Your task to perform on an android device: Do I have any events today? Image 0: 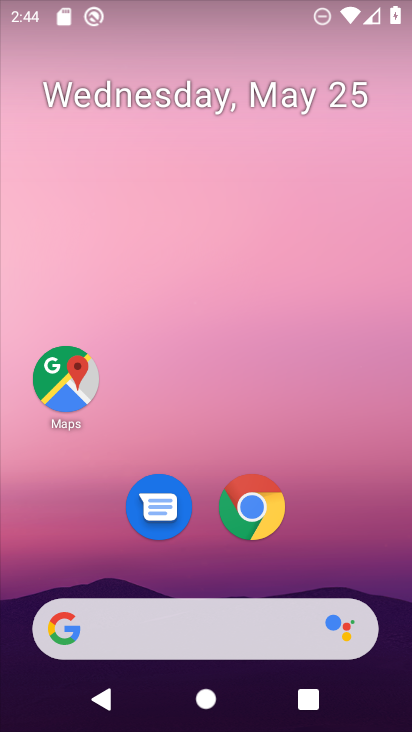
Step 0: drag from (217, 630) to (226, 90)
Your task to perform on an android device: Do I have any events today? Image 1: 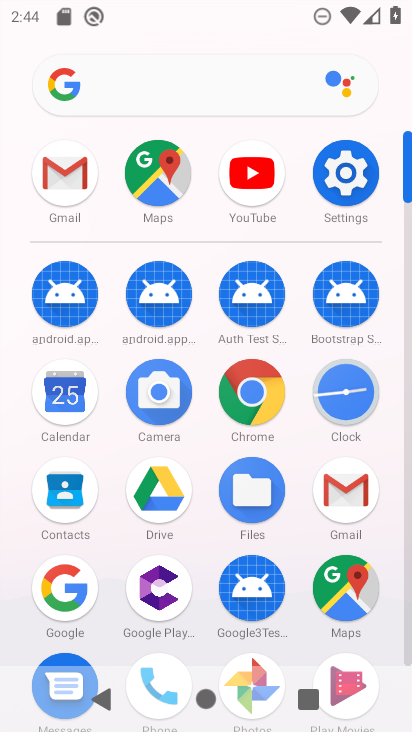
Step 1: click (60, 400)
Your task to perform on an android device: Do I have any events today? Image 2: 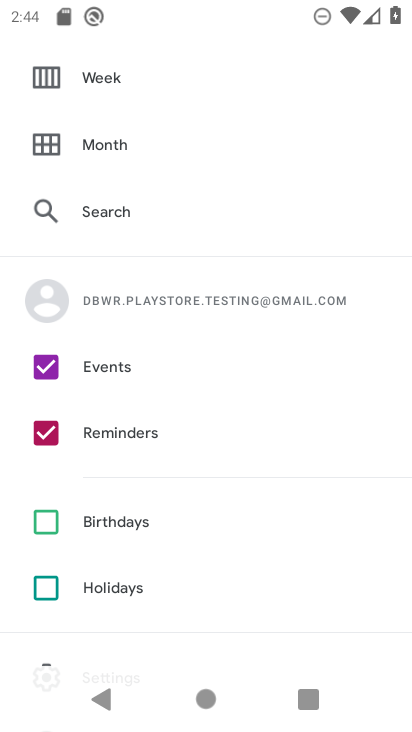
Step 2: drag from (163, 292) to (126, 641)
Your task to perform on an android device: Do I have any events today? Image 3: 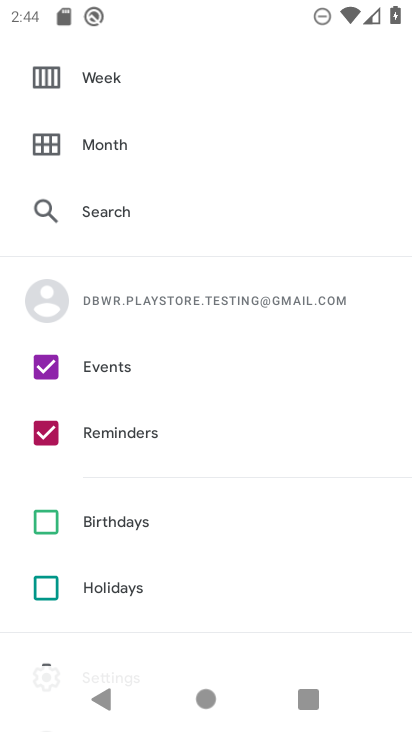
Step 3: drag from (124, 318) to (171, 615)
Your task to perform on an android device: Do I have any events today? Image 4: 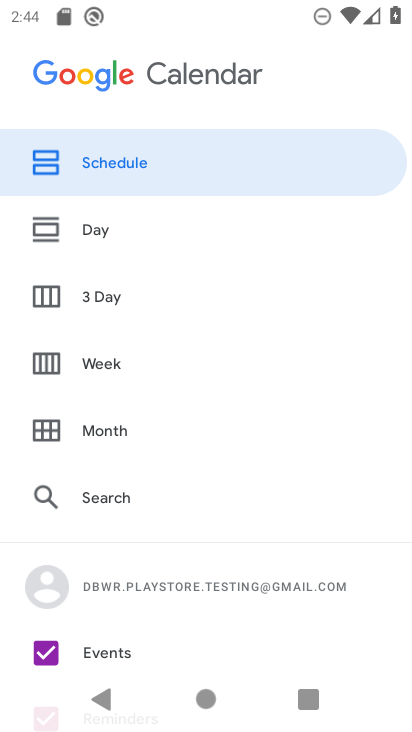
Step 4: drag from (119, 326) to (139, 660)
Your task to perform on an android device: Do I have any events today? Image 5: 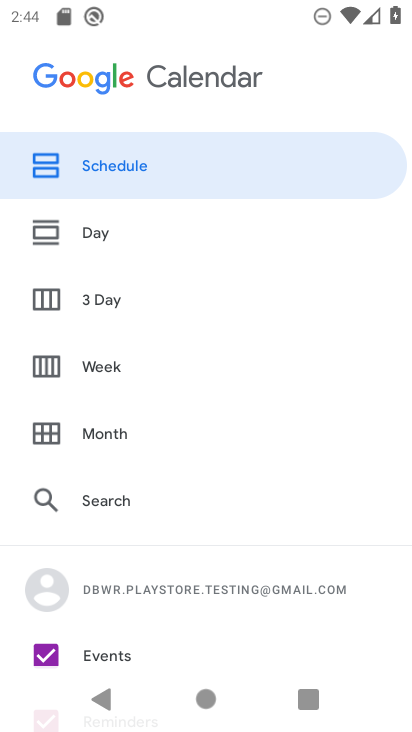
Step 5: drag from (324, 494) to (14, 398)
Your task to perform on an android device: Do I have any events today? Image 6: 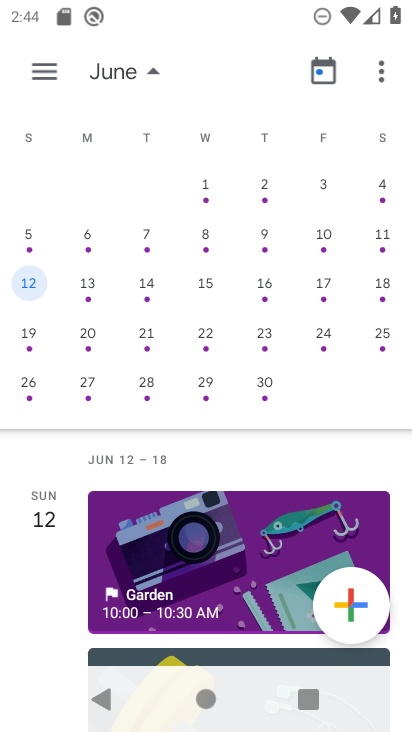
Step 6: drag from (273, 423) to (63, 395)
Your task to perform on an android device: Do I have any events today? Image 7: 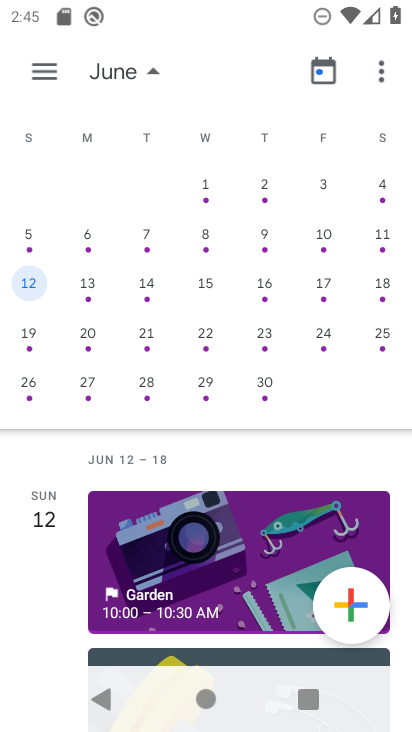
Step 7: drag from (60, 303) to (404, 342)
Your task to perform on an android device: Do I have any events today? Image 8: 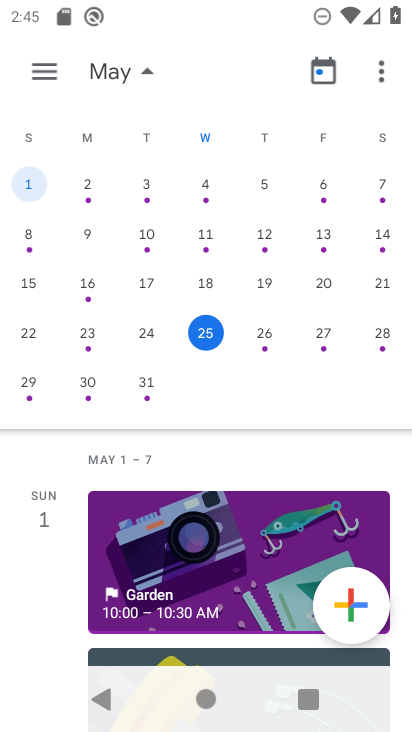
Step 8: click (212, 339)
Your task to perform on an android device: Do I have any events today? Image 9: 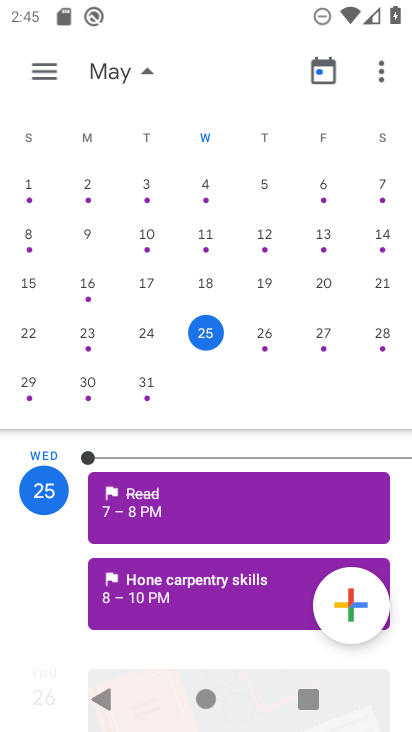
Step 9: task complete